Your task to perform on an android device: Open Google Image 0: 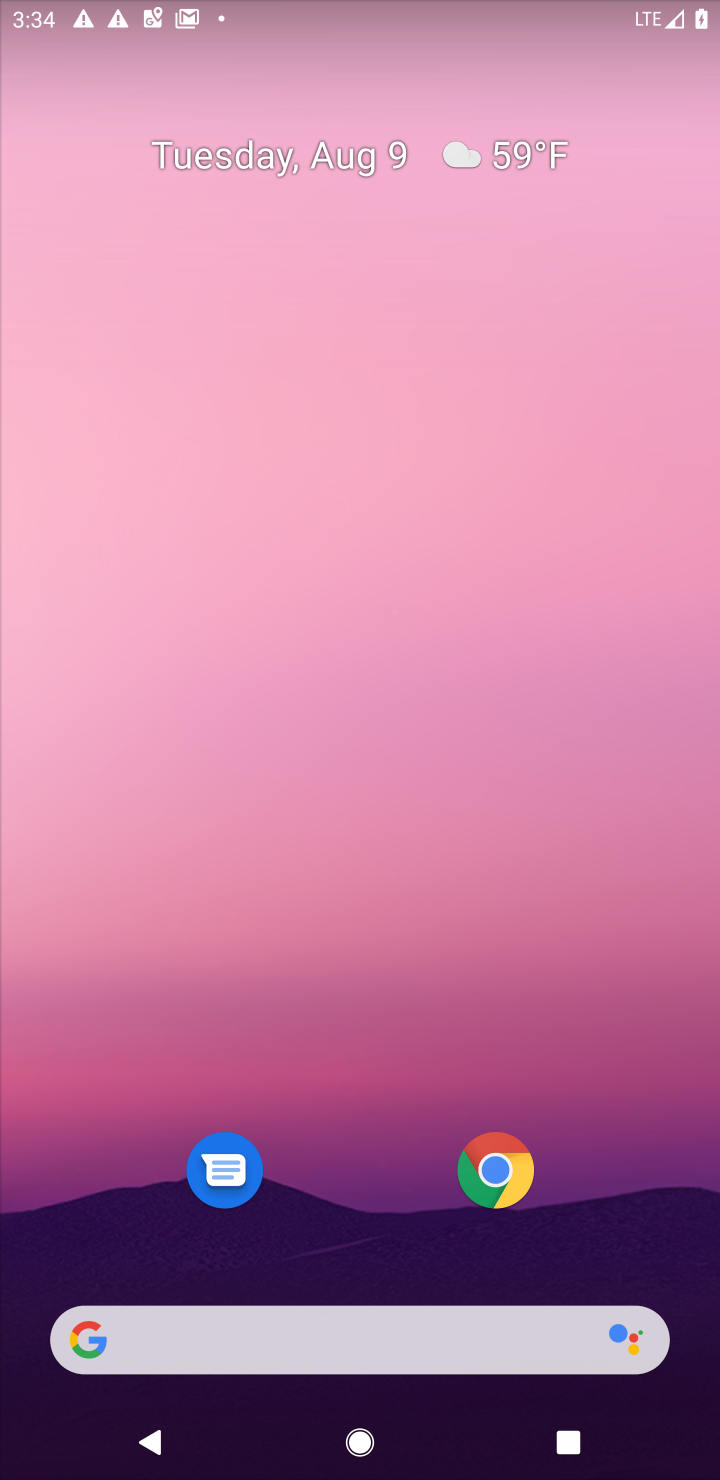
Step 0: press home button
Your task to perform on an android device: Open Google Image 1: 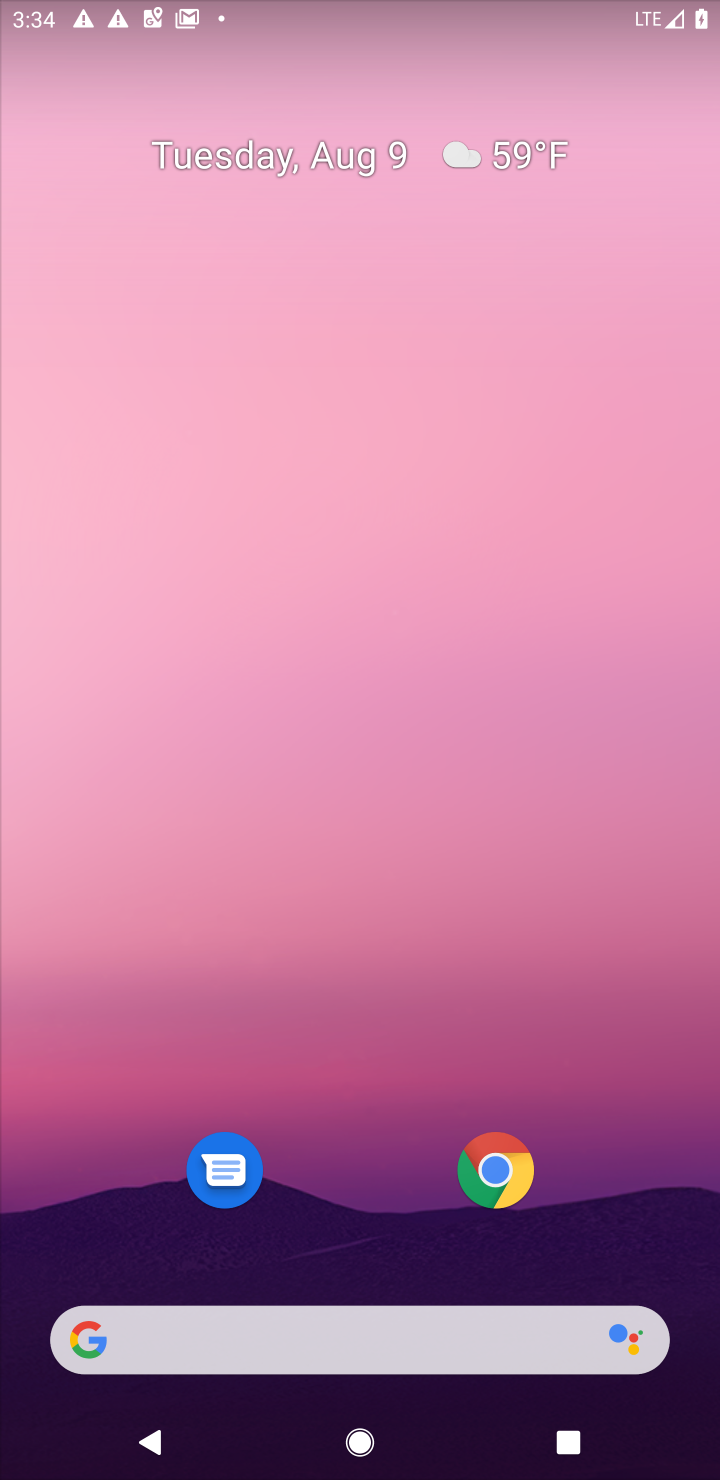
Step 1: click (80, 1354)
Your task to perform on an android device: Open Google Image 2: 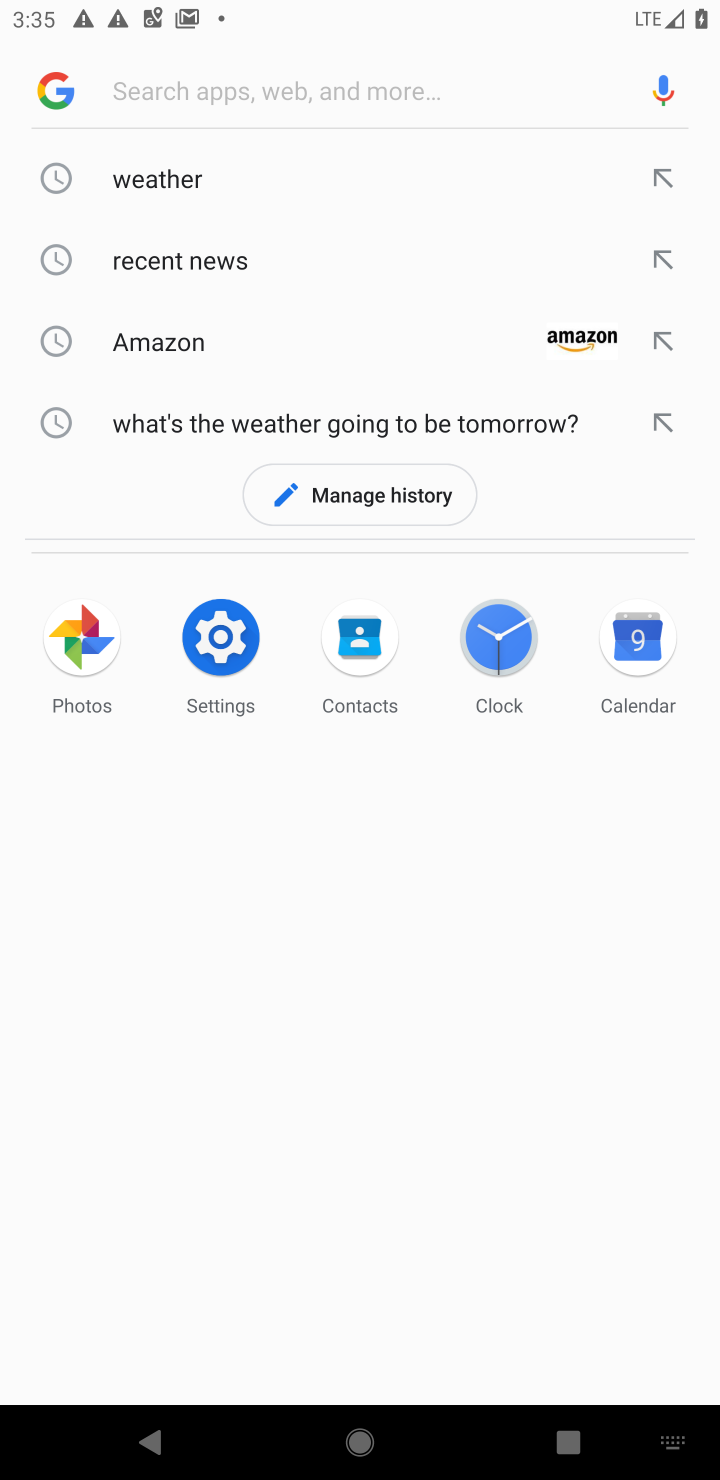
Step 2: click (59, 90)
Your task to perform on an android device: Open Google Image 3: 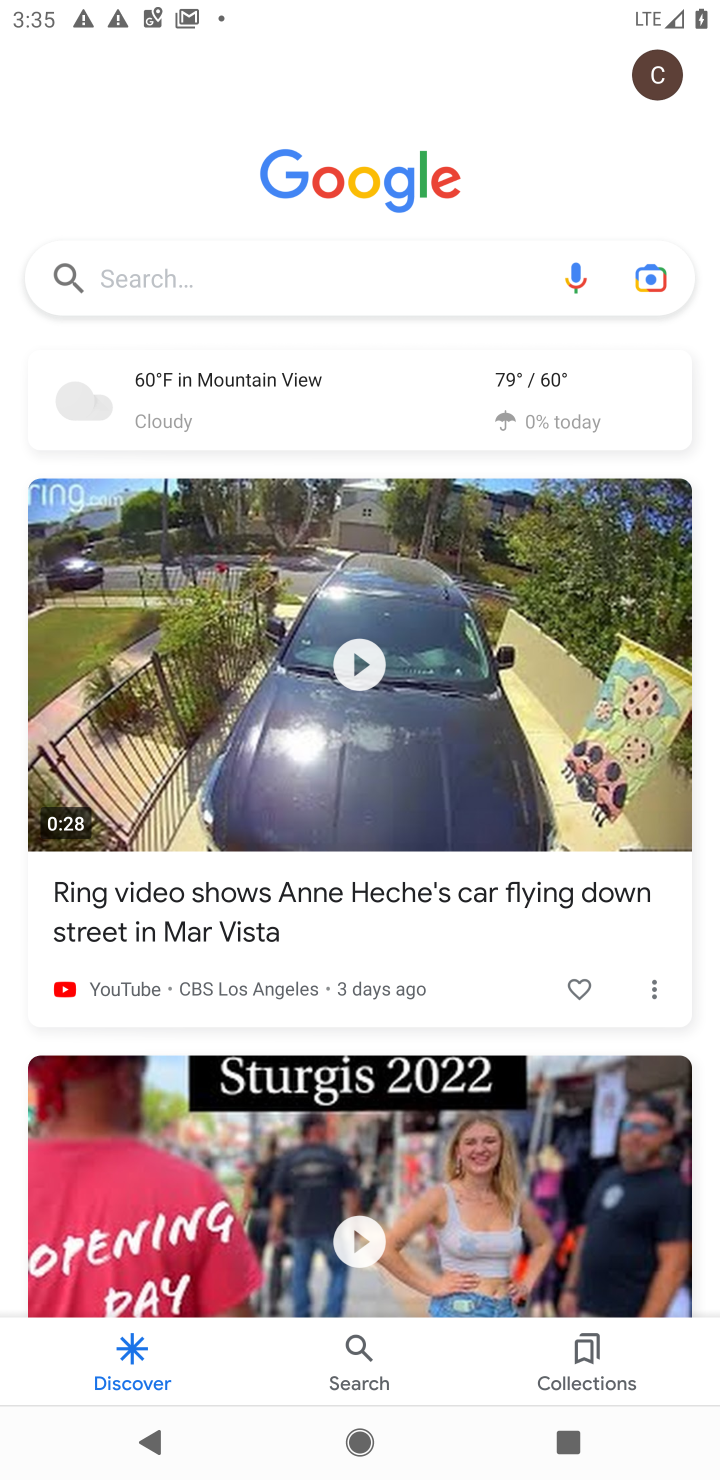
Step 3: task complete